Your task to perform on an android device: Go to Wikipedia Image 0: 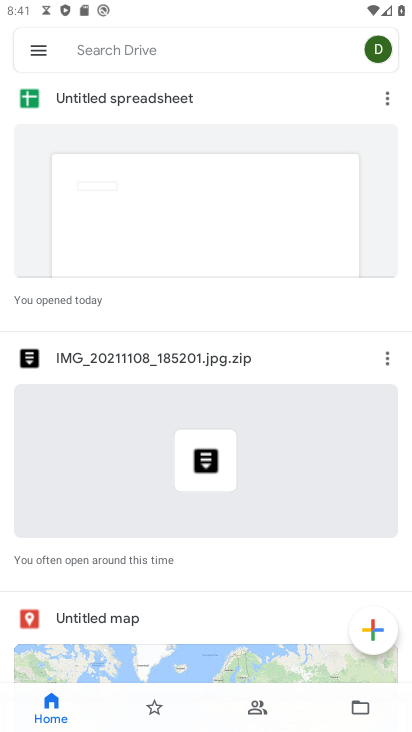
Step 0: press home button
Your task to perform on an android device: Go to Wikipedia Image 1: 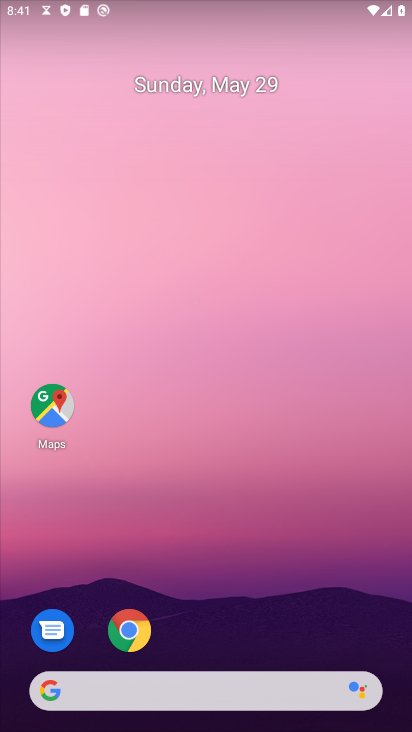
Step 1: click (133, 643)
Your task to perform on an android device: Go to Wikipedia Image 2: 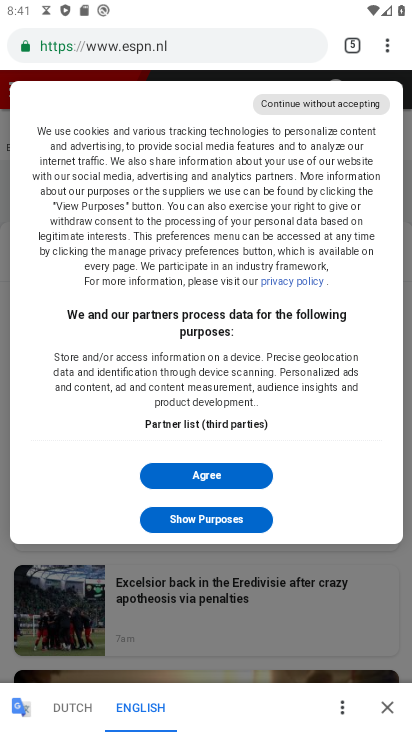
Step 2: click (353, 43)
Your task to perform on an android device: Go to Wikipedia Image 3: 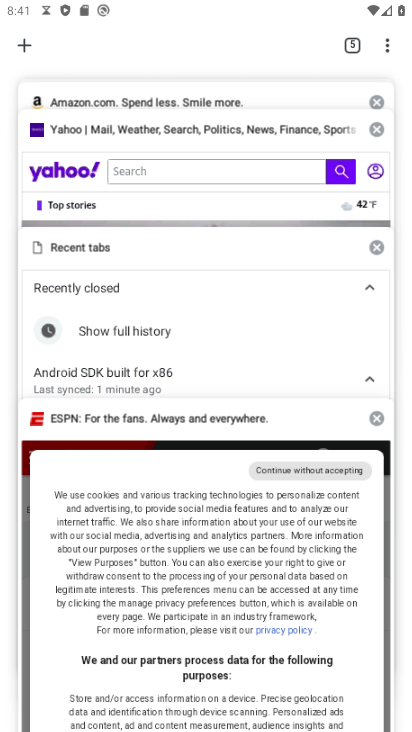
Step 3: click (31, 40)
Your task to perform on an android device: Go to Wikipedia Image 4: 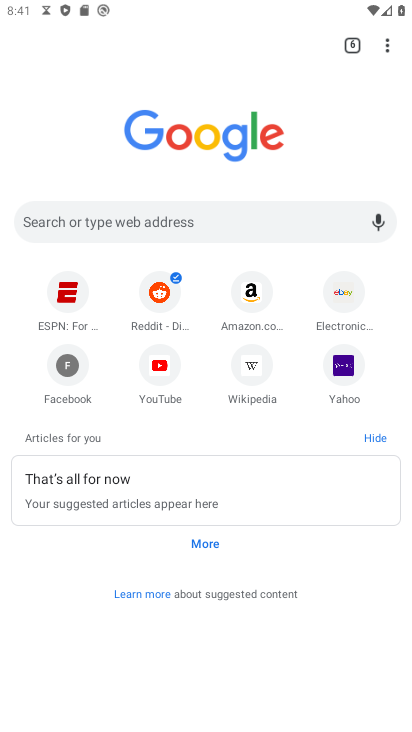
Step 4: click (256, 375)
Your task to perform on an android device: Go to Wikipedia Image 5: 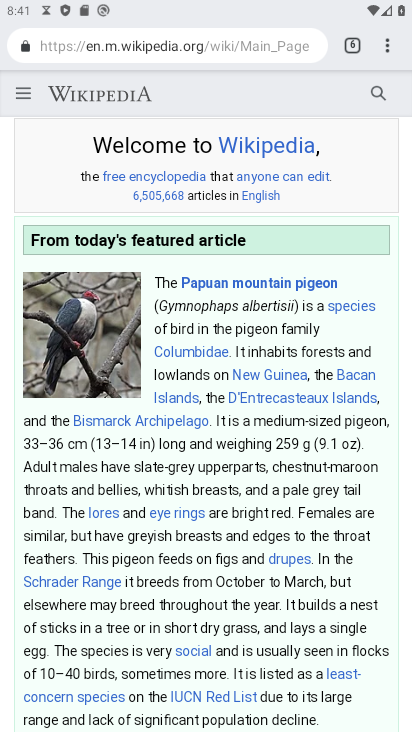
Step 5: task complete